Your task to perform on an android device: Open network settings Image 0: 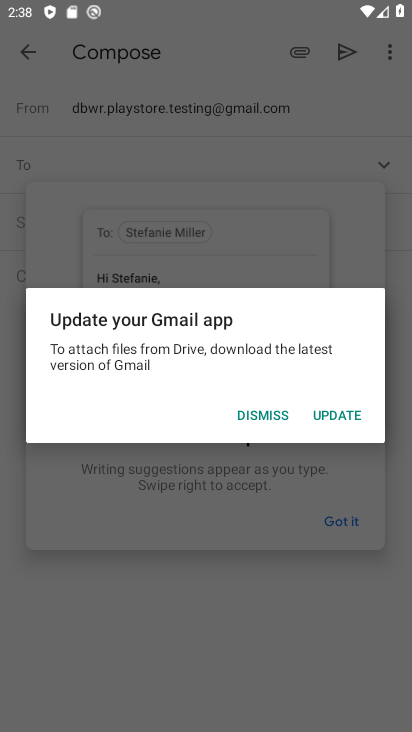
Step 0: press home button
Your task to perform on an android device: Open network settings Image 1: 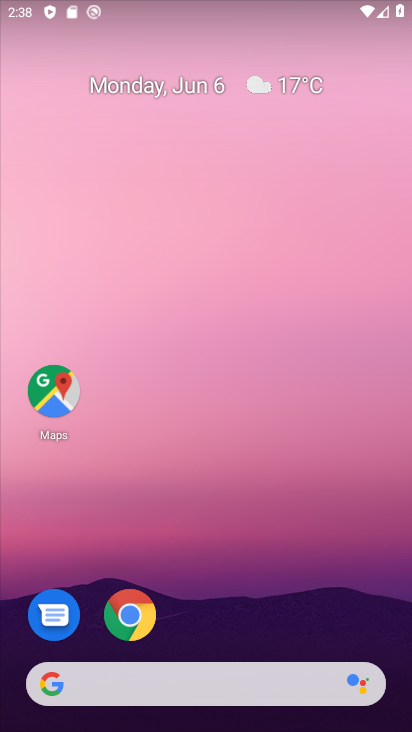
Step 1: drag from (269, 628) to (217, 196)
Your task to perform on an android device: Open network settings Image 2: 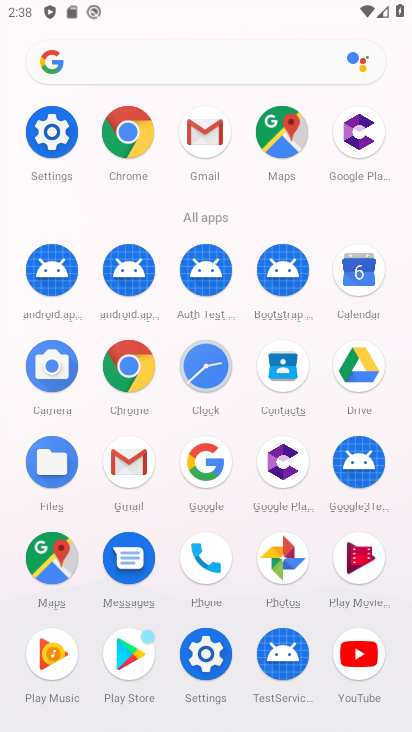
Step 2: click (50, 150)
Your task to perform on an android device: Open network settings Image 3: 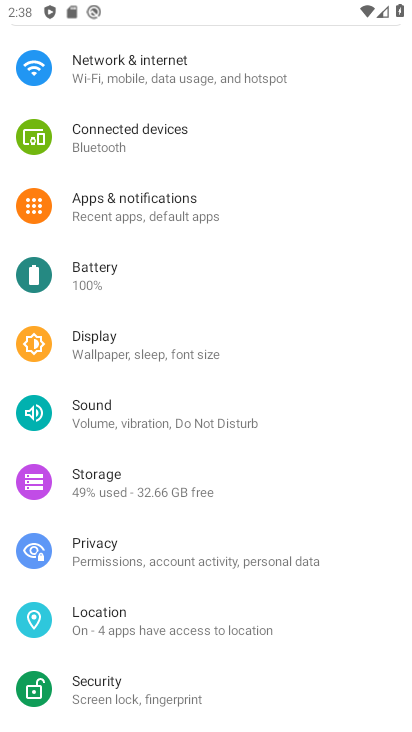
Step 3: click (235, 72)
Your task to perform on an android device: Open network settings Image 4: 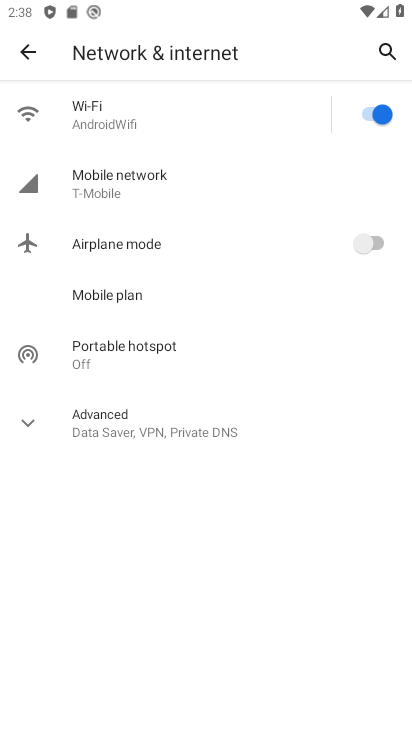
Step 4: task complete